Your task to perform on an android device: see creations saved in the google photos Image 0: 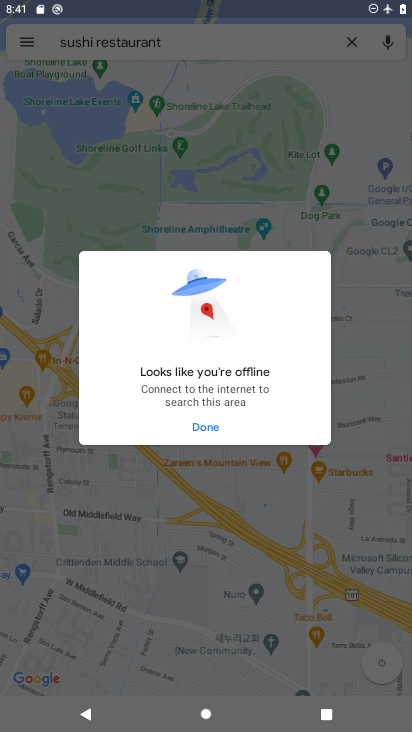
Step 0: press home button
Your task to perform on an android device: see creations saved in the google photos Image 1: 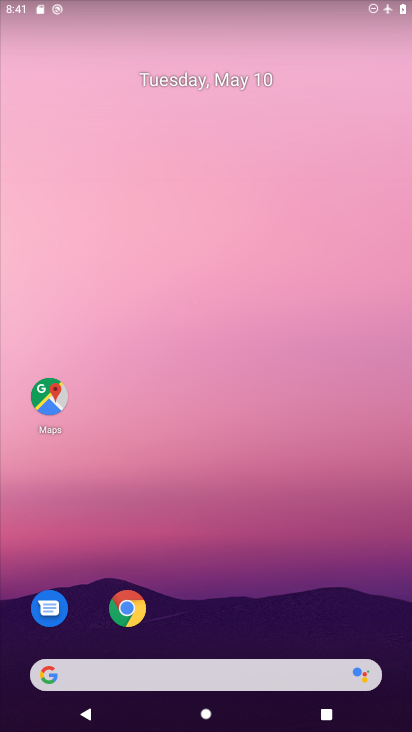
Step 1: drag from (246, 560) to (265, 333)
Your task to perform on an android device: see creations saved in the google photos Image 2: 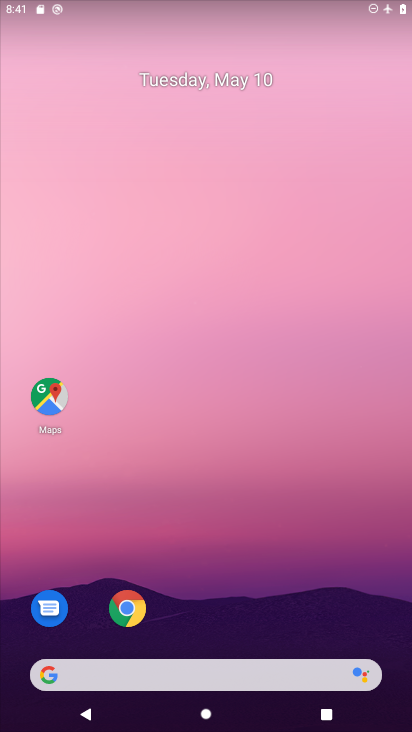
Step 2: drag from (229, 562) to (247, 334)
Your task to perform on an android device: see creations saved in the google photos Image 3: 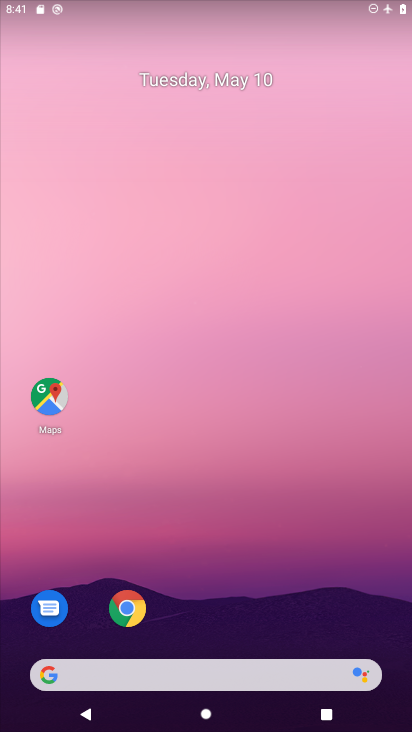
Step 3: drag from (247, 549) to (266, 328)
Your task to perform on an android device: see creations saved in the google photos Image 4: 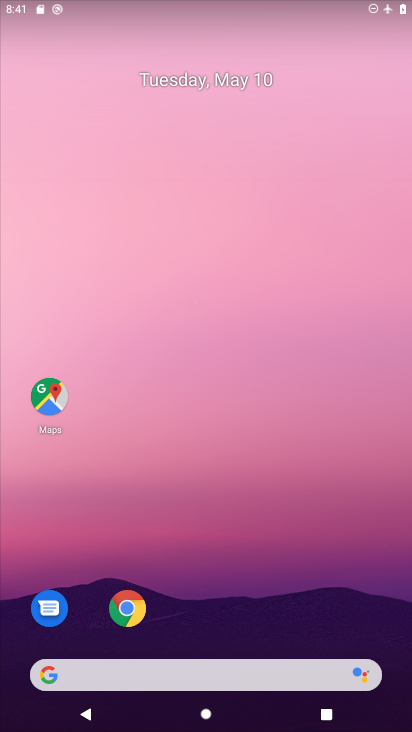
Step 4: drag from (230, 632) to (264, 100)
Your task to perform on an android device: see creations saved in the google photos Image 5: 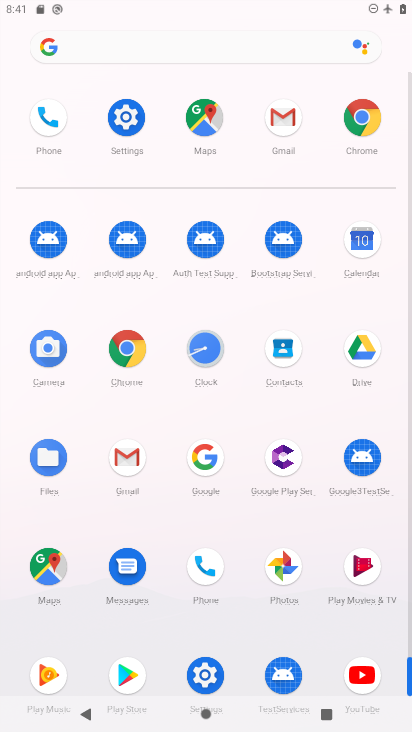
Step 5: click (279, 566)
Your task to perform on an android device: see creations saved in the google photos Image 6: 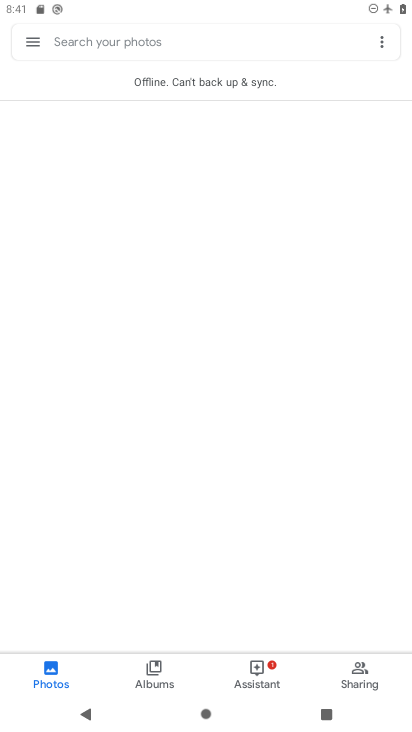
Step 6: click (155, 666)
Your task to perform on an android device: see creations saved in the google photos Image 7: 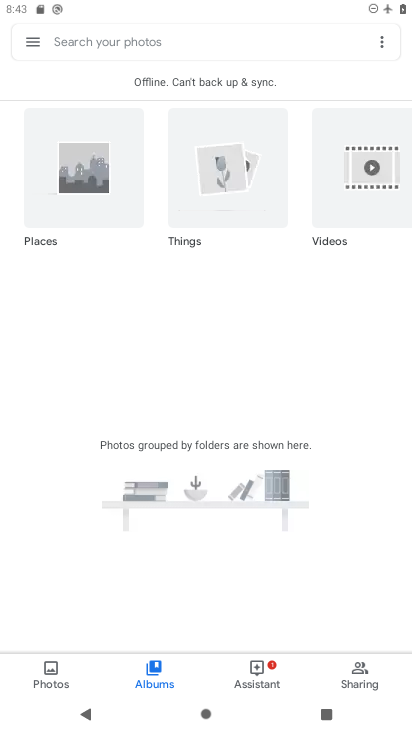
Step 7: task complete